Your task to perform on an android device: Go to Yahoo.com Image 0: 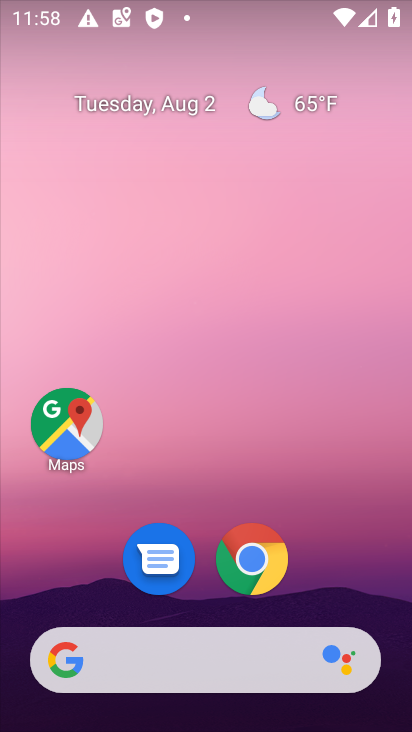
Step 0: click (252, 562)
Your task to perform on an android device: Go to Yahoo.com Image 1: 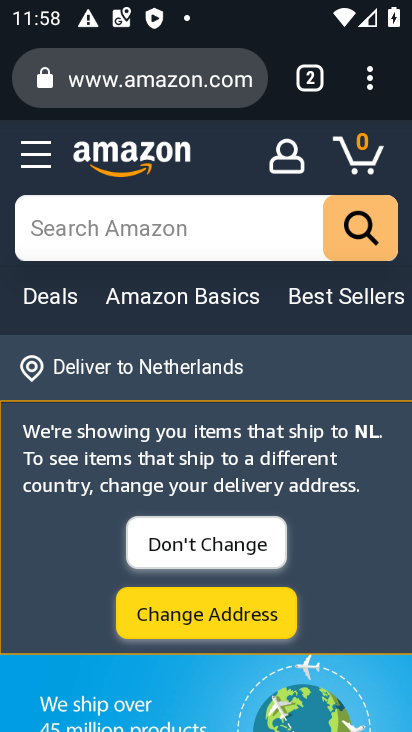
Step 1: click (366, 91)
Your task to perform on an android device: Go to Yahoo.com Image 2: 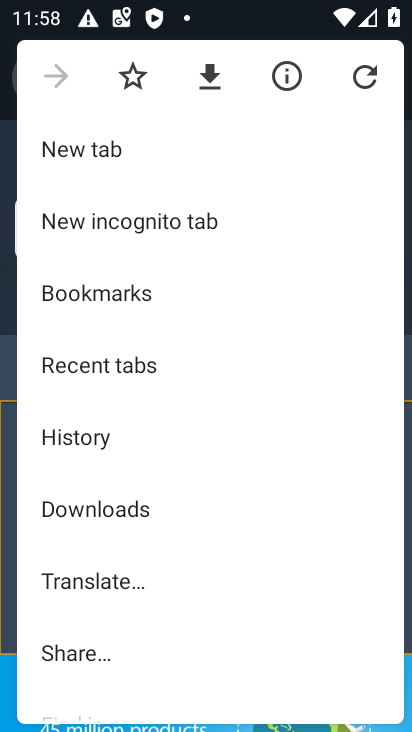
Step 2: click (85, 151)
Your task to perform on an android device: Go to Yahoo.com Image 3: 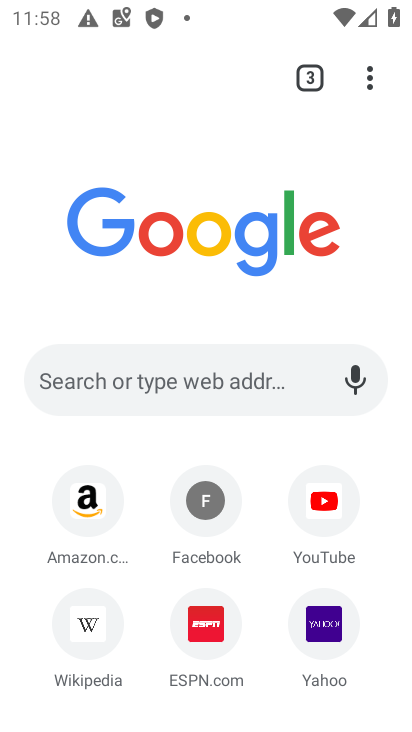
Step 3: click (321, 614)
Your task to perform on an android device: Go to Yahoo.com Image 4: 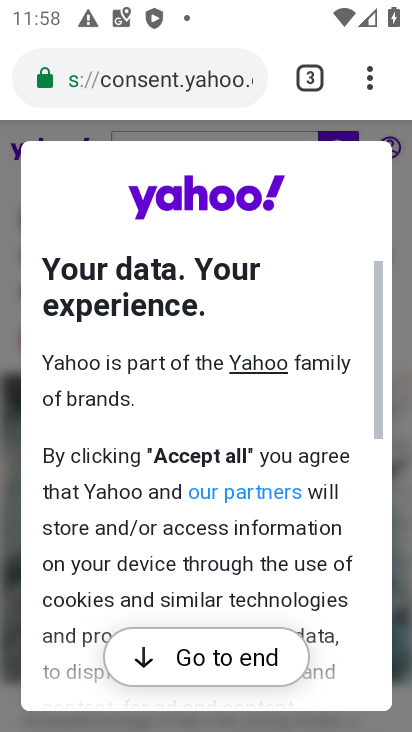
Step 4: task complete